Your task to perform on an android device: Add razer thresher to the cart on newegg Image 0: 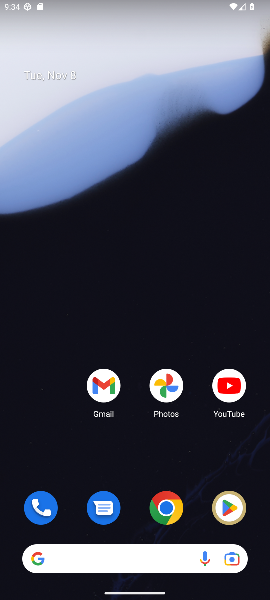
Step 0: click (160, 510)
Your task to perform on an android device: Add razer thresher to the cart on newegg Image 1: 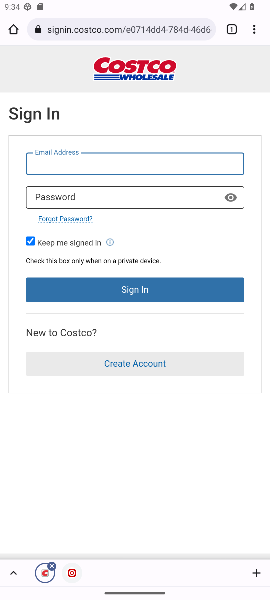
Step 1: click (128, 29)
Your task to perform on an android device: Add razer thresher to the cart on newegg Image 2: 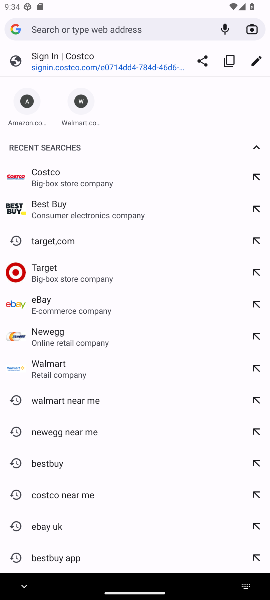
Step 2: type "newegg"
Your task to perform on an android device: Add razer thresher to the cart on newegg Image 3: 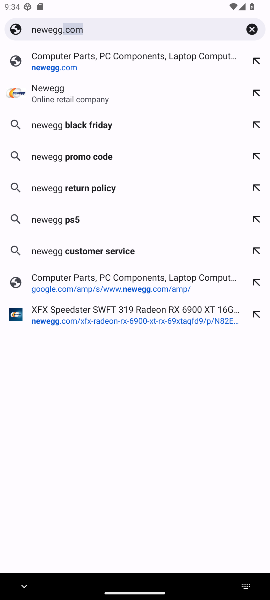
Step 3: click (42, 101)
Your task to perform on an android device: Add razer thresher to the cart on newegg Image 4: 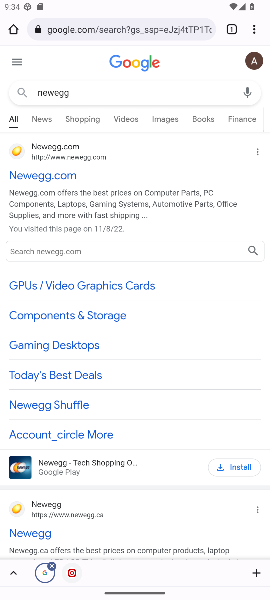
Step 4: click (42, 178)
Your task to perform on an android device: Add razer thresher to the cart on newegg Image 5: 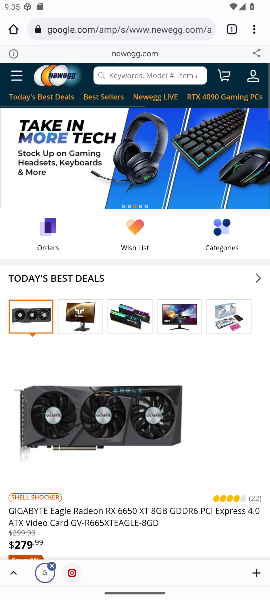
Step 5: click (126, 77)
Your task to perform on an android device: Add razer thresher to the cart on newegg Image 6: 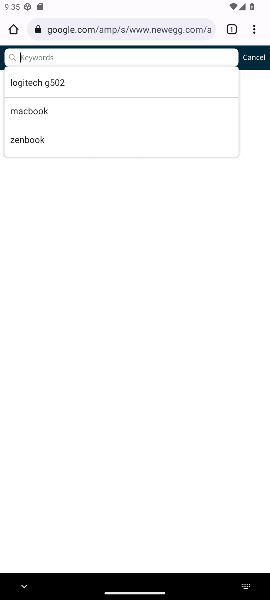
Step 6: type "razer thresher"
Your task to perform on an android device: Add razer thresher to the cart on newegg Image 7: 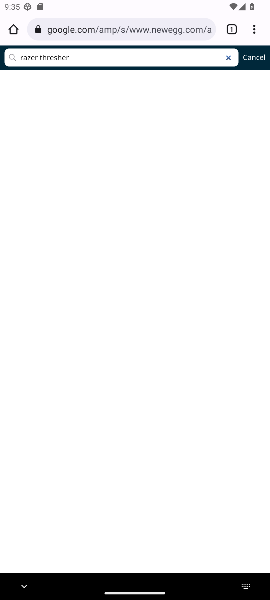
Step 7: click (5, 51)
Your task to perform on an android device: Add razer thresher to the cart on newegg Image 8: 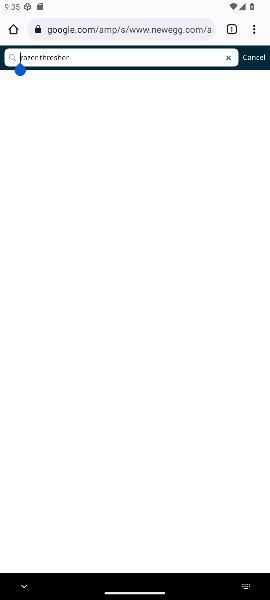
Step 8: click (86, 59)
Your task to perform on an android device: Add razer thresher to the cart on newegg Image 9: 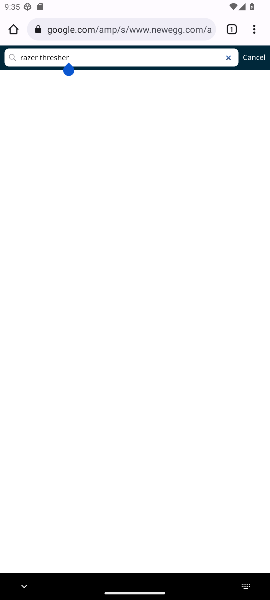
Step 9: click (68, 56)
Your task to perform on an android device: Add razer thresher to the cart on newegg Image 10: 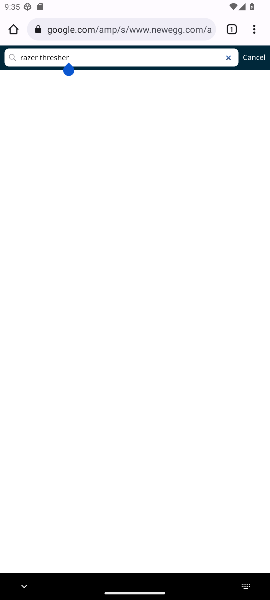
Step 10: click (223, 59)
Your task to perform on an android device: Add razer thresher to the cart on newegg Image 11: 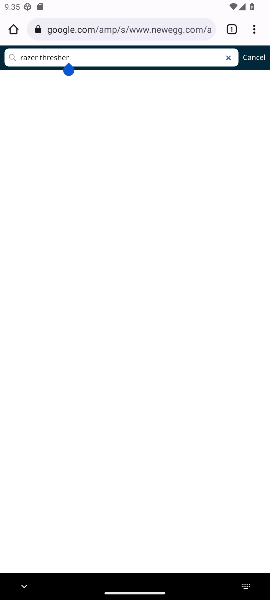
Step 11: click (228, 56)
Your task to perform on an android device: Add razer thresher to the cart on newegg Image 12: 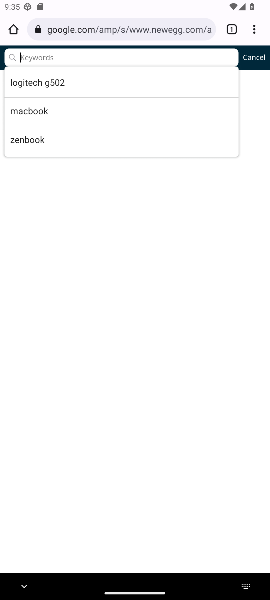
Step 12: type "razer thresher"
Your task to perform on an android device: Add razer thresher to the cart on newegg Image 13: 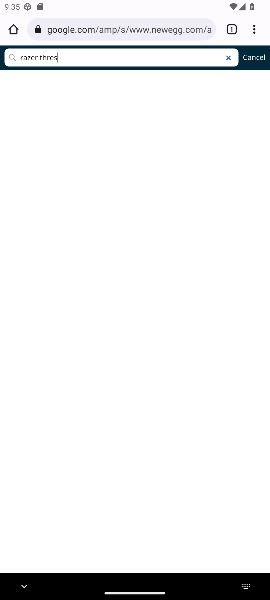
Step 13: type ""
Your task to perform on an android device: Add razer thresher to the cart on newegg Image 14: 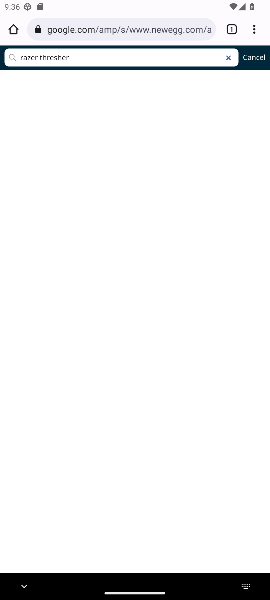
Step 14: click (13, 57)
Your task to perform on an android device: Add razer thresher to the cart on newegg Image 15: 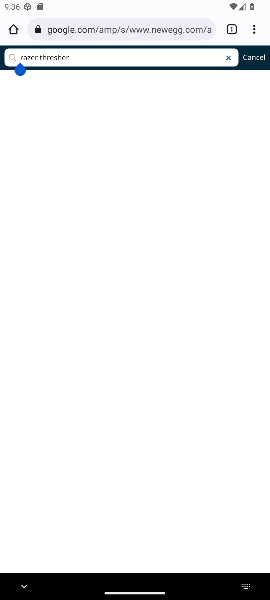
Step 15: click (77, 54)
Your task to perform on an android device: Add razer thresher to the cart on newegg Image 16: 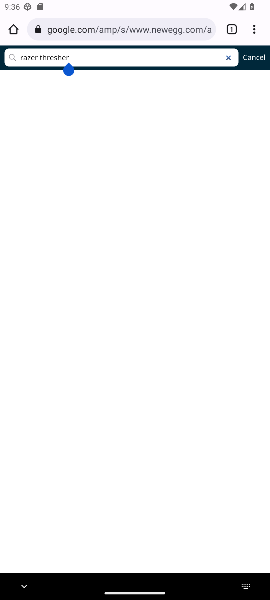
Step 16: press back button
Your task to perform on an android device: Add razer thresher to the cart on newegg Image 17: 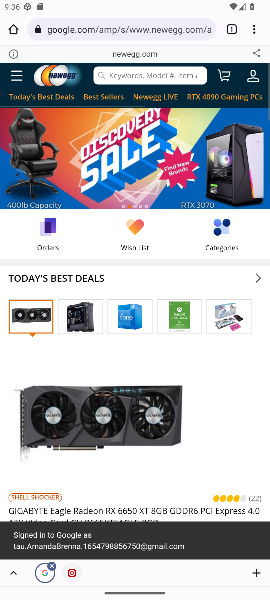
Step 17: click (150, 75)
Your task to perform on an android device: Add razer thresher to the cart on newegg Image 18: 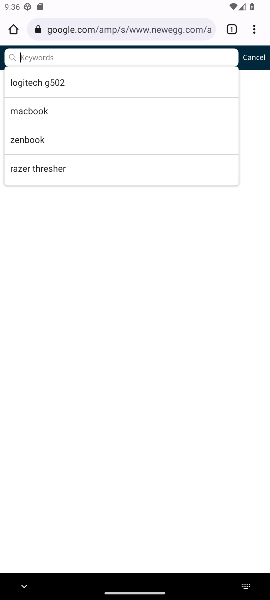
Step 18: press back button
Your task to perform on an android device: Add razer thresher to the cart on newegg Image 19: 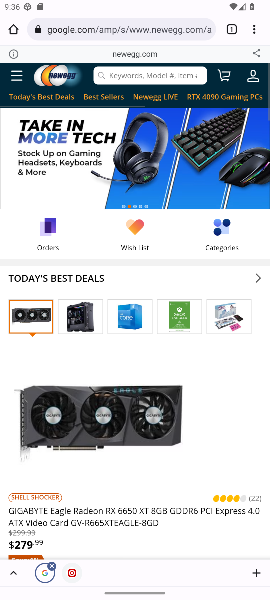
Step 19: press back button
Your task to perform on an android device: Add razer thresher to the cart on newegg Image 20: 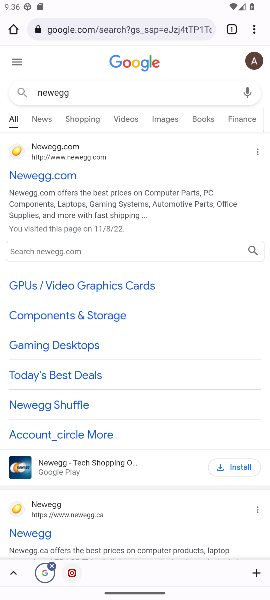
Step 20: drag from (51, 450) to (127, 54)
Your task to perform on an android device: Add razer thresher to the cart on newegg Image 21: 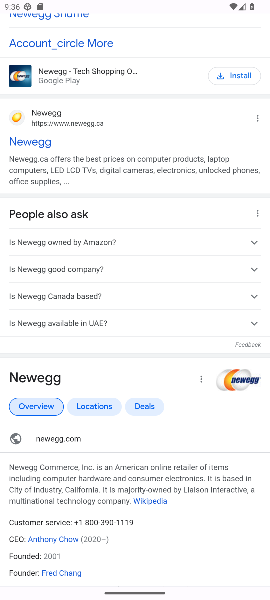
Step 21: drag from (158, 135) to (117, 598)
Your task to perform on an android device: Add razer thresher to the cart on newegg Image 22: 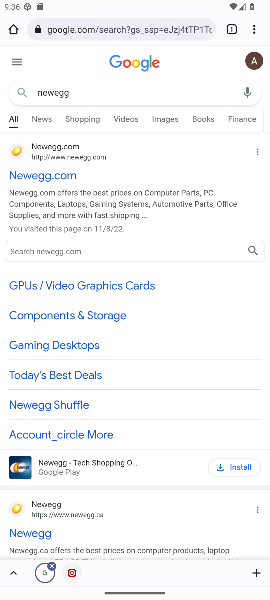
Step 22: click (20, 176)
Your task to perform on an android device: Add razer thresher to the cart on newegg Image 23: 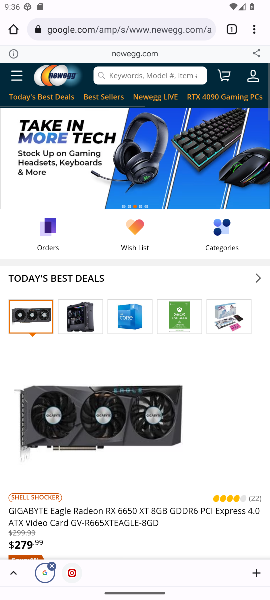
Step 23: click (137, 77)
Your task to perform on an android device: Add razer thresher to the cart on newegg Image 24: 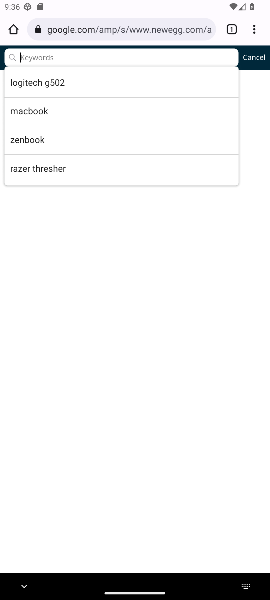
Step 24: click (31, 165)
Your task to perform on an android device: Add razer thresher to the cart on newegg Image 25: 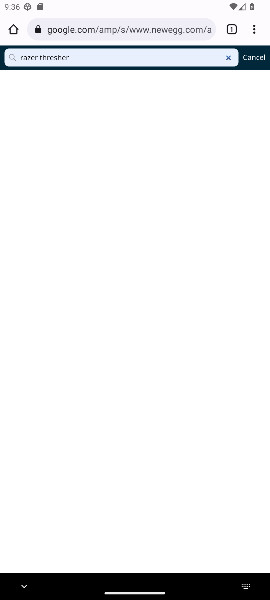
Step 25: task complete